Your task to perform on an android device: toggle notifications settings in the gmail app Image 0: 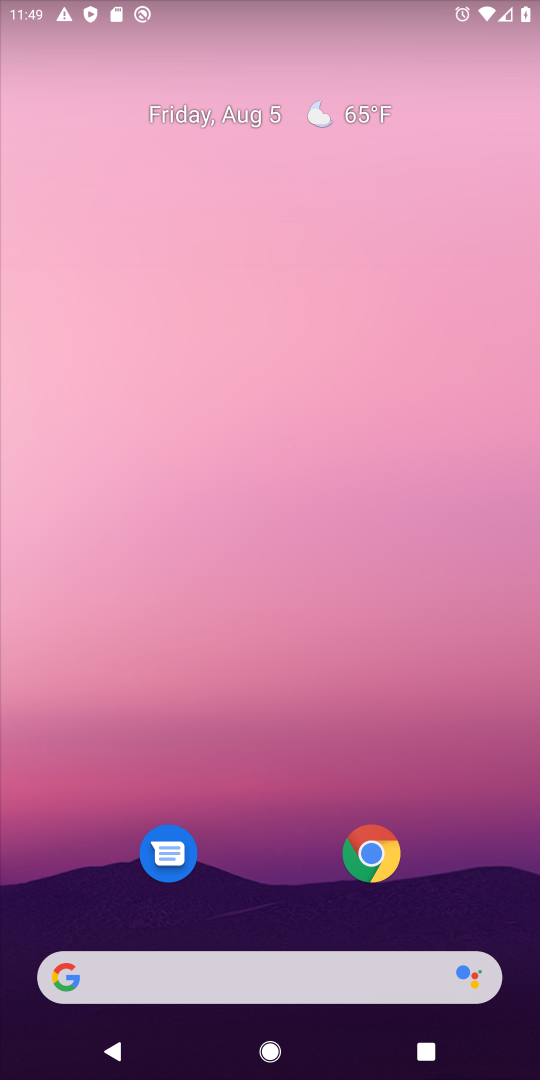
Step 0: drag from (229, 61) to (125, 9)
Your task to perform on an android device: toggle notifications settings in the gmail app Image 1: 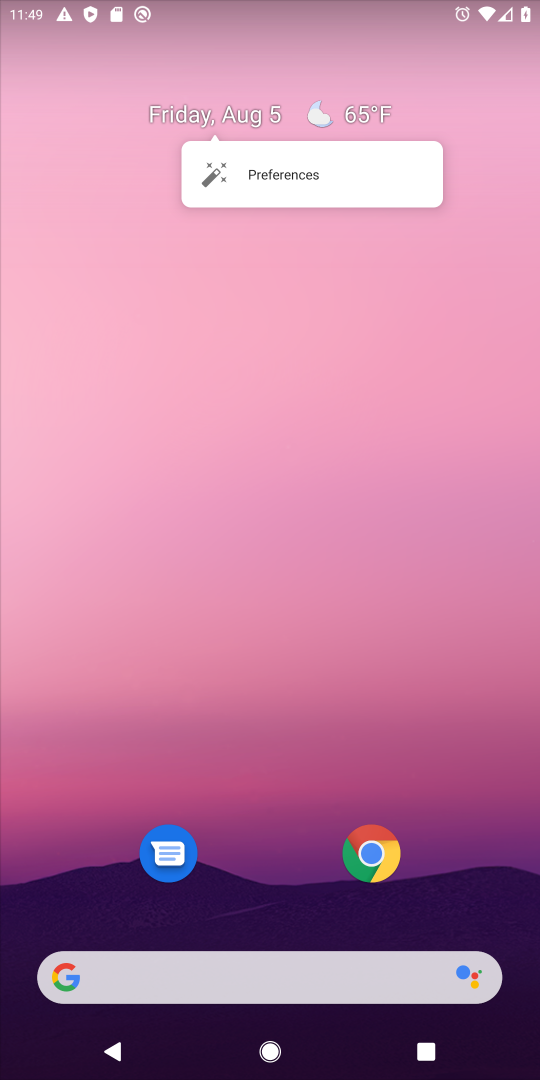
Step 1: drag from (303, 971) to (204, 55)
Your task to perform on an android device: toggle notifications settings in the gmail app Image 2: 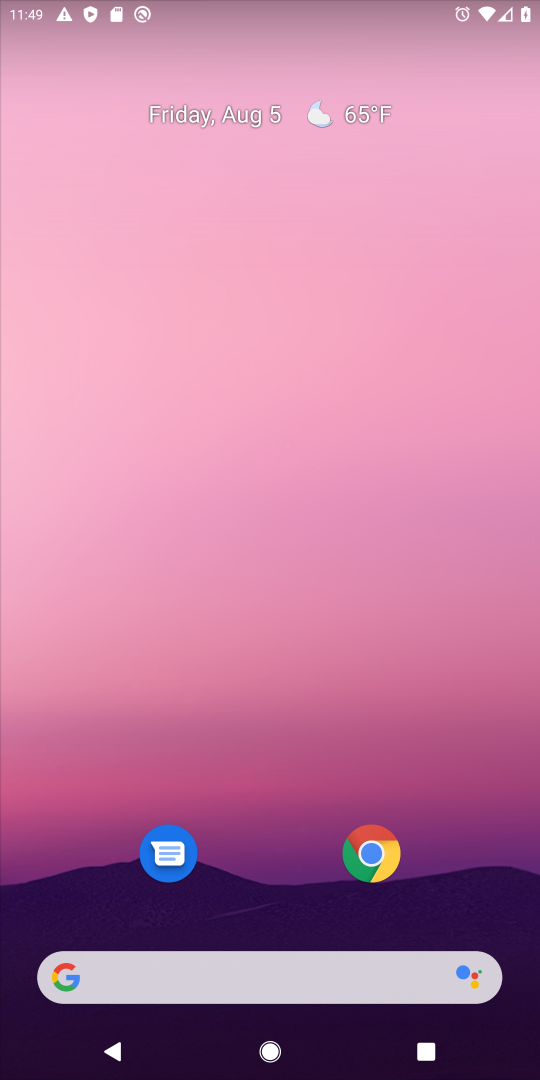
Step 2: drag from (268, 984) to (173, 57)
Your task to perform on an android device: toggle notifications settings in the gmail app Image 3: 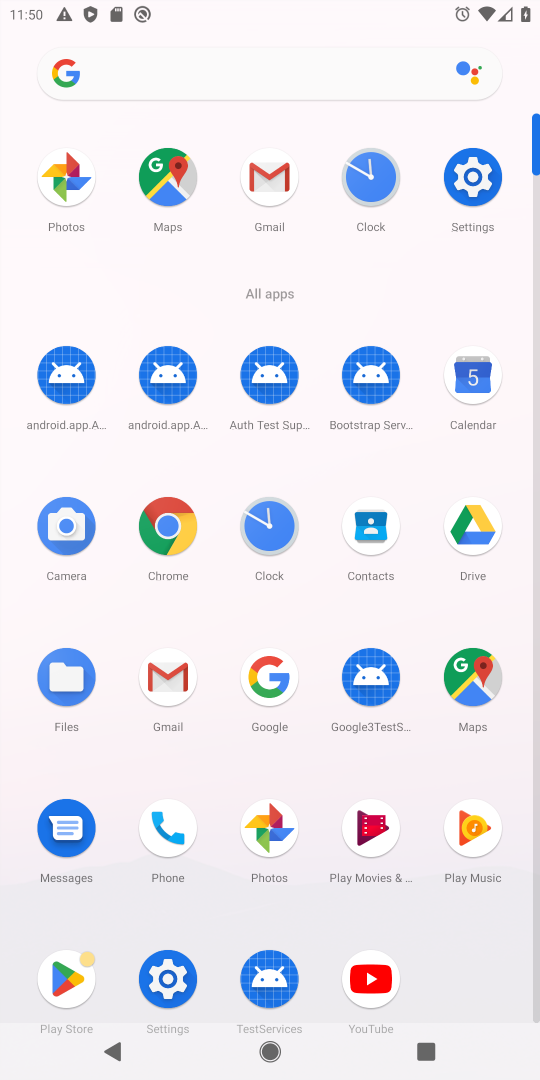
Step 3: click (159, 692)
Your task to perform on an android device: toggle notifications settings in the gmail app Image 4: 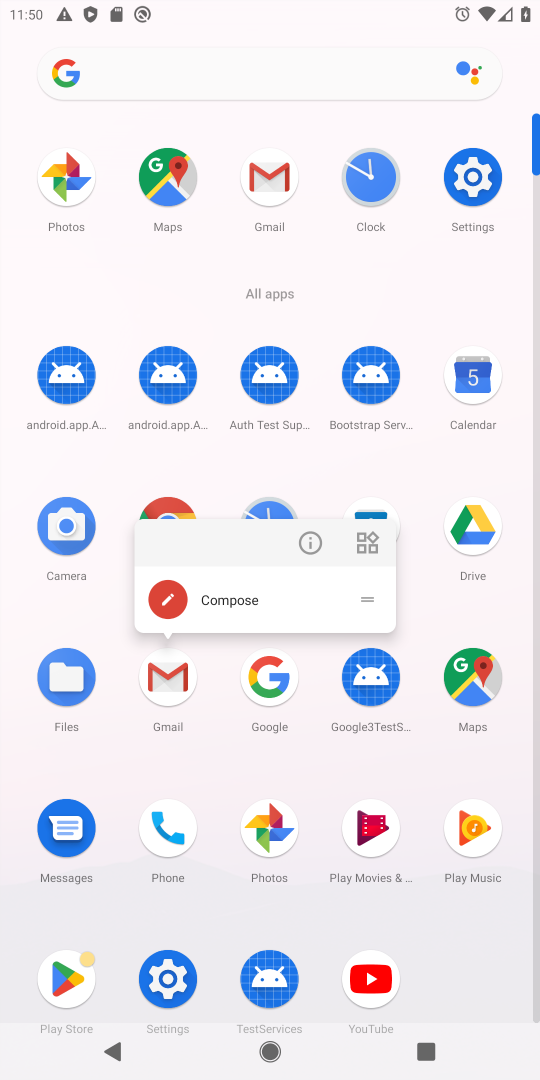
Step 4: click (185, 684)
Your task to perform on an android device: toggle notifications settings in the gmail app Image 5: 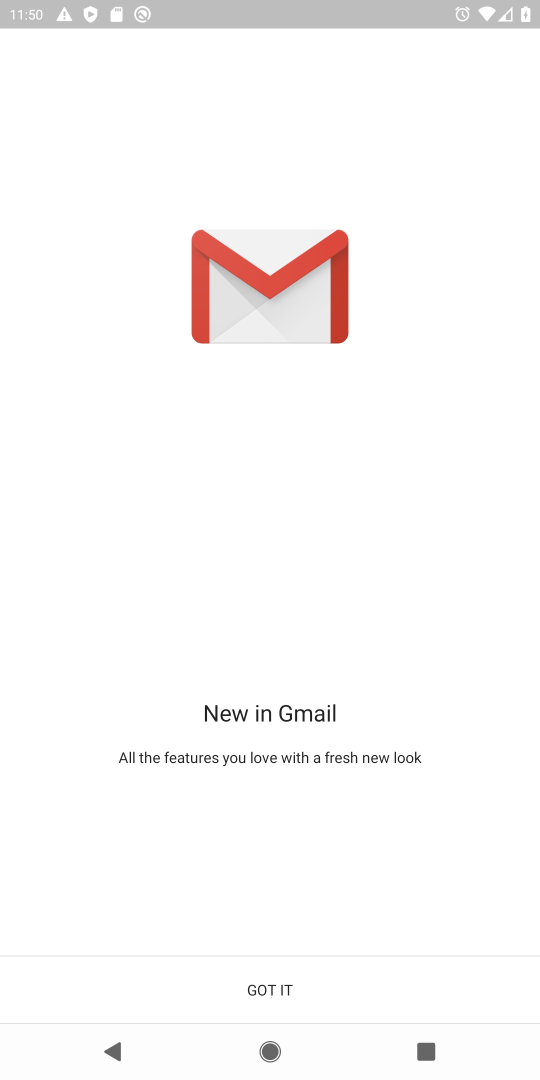
Step 5: click (300, 971)
Your task to perform on an android device: toggle notifications settings in the gmail app Image 6: 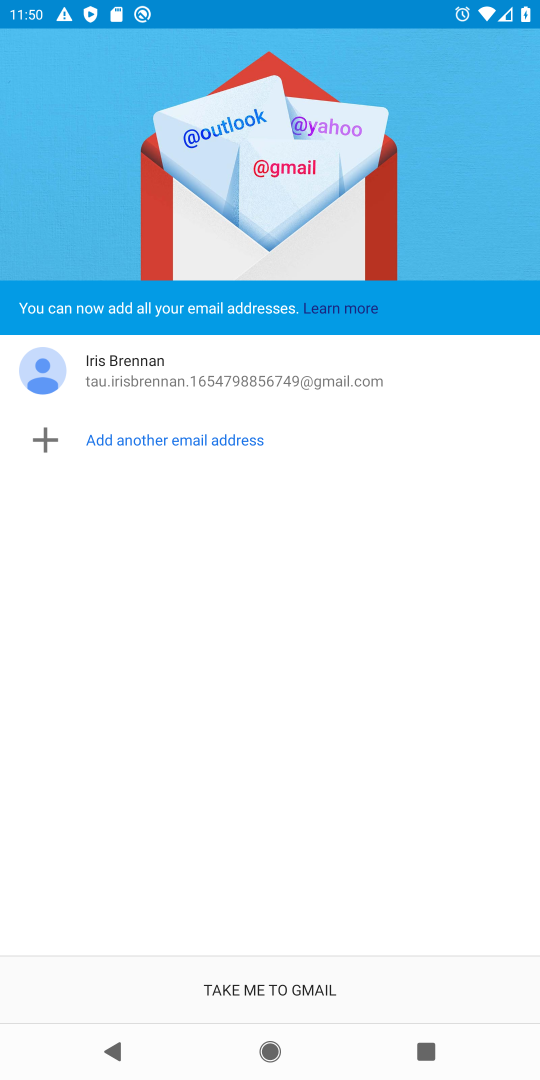
Step 6: click (310, 997)
Your task to perform on an android device: toggle notifications settings in the gmail app Image 7: 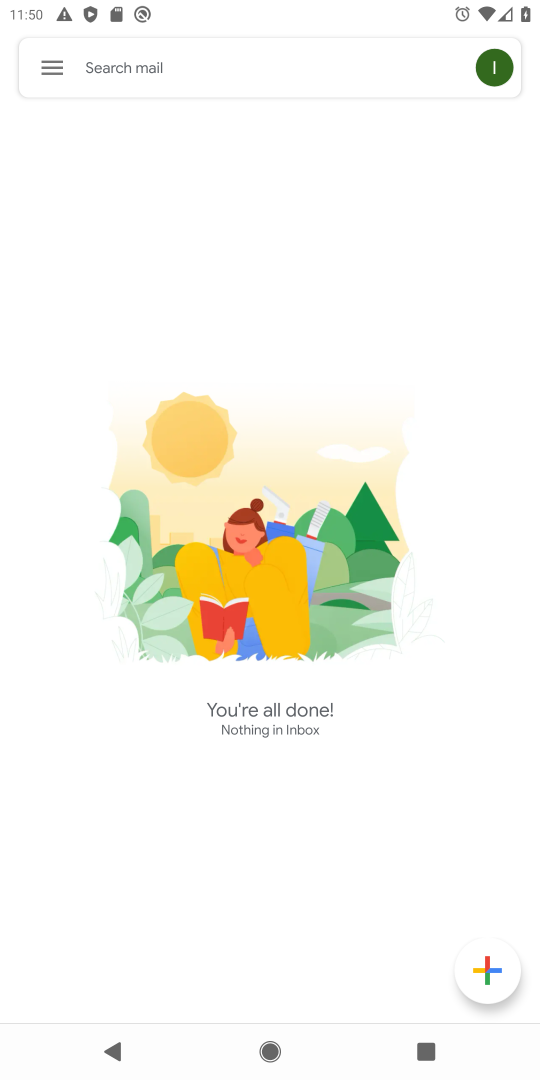
Step 7: click (60, 75)
Your task to perform on an android device: toggle notifications settings in the gmail app Image 8: 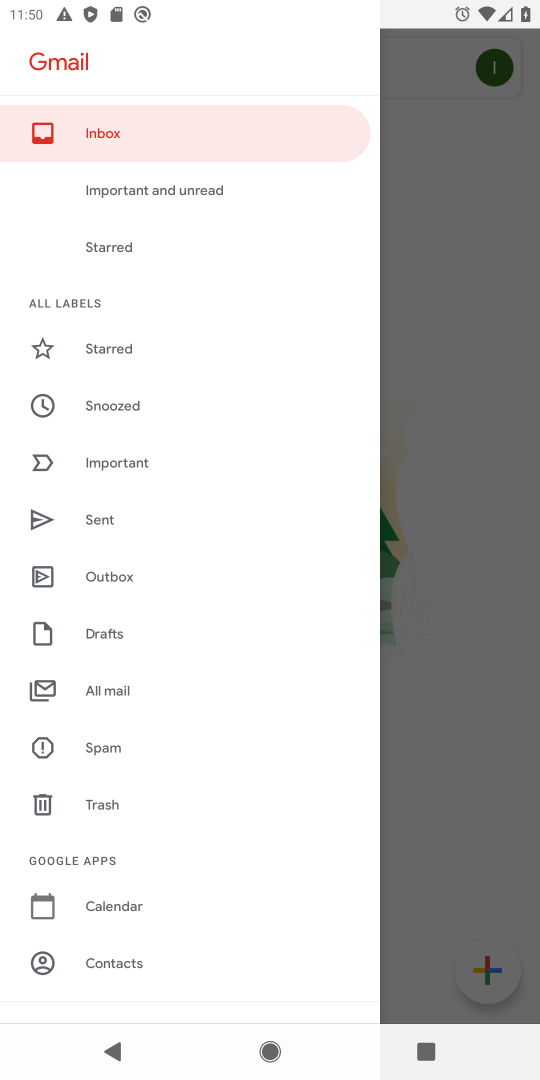
Step 8: drag from (133, 921) to (94, 360)
Your task to perform on an android device: toggle notifications settings in the gmail app Image 9: 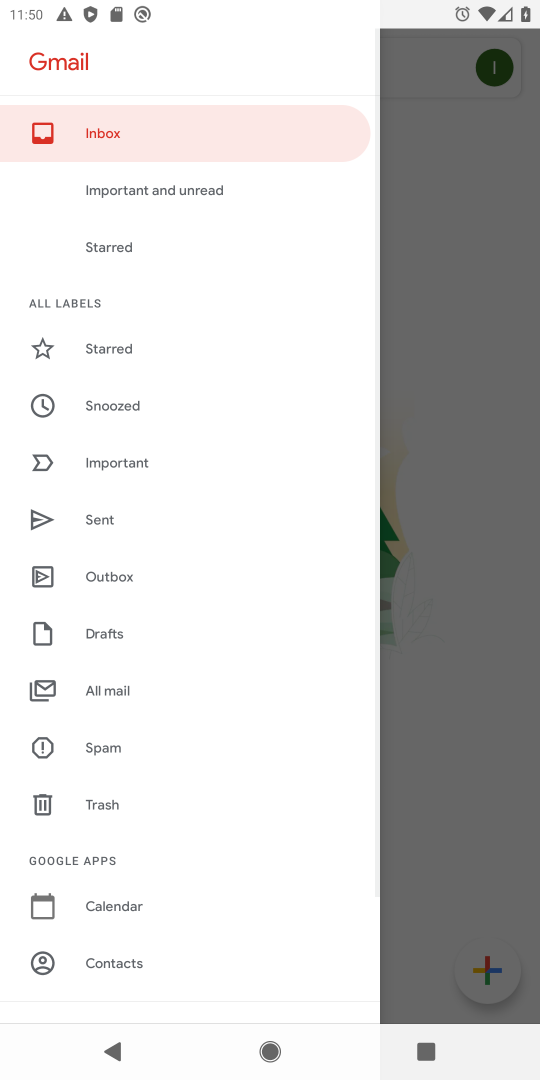
Step 9: drag from (190, 806) to (130, 59)
Your task to perform on an android device: toggle notifications settings in the gmail app Image 10: 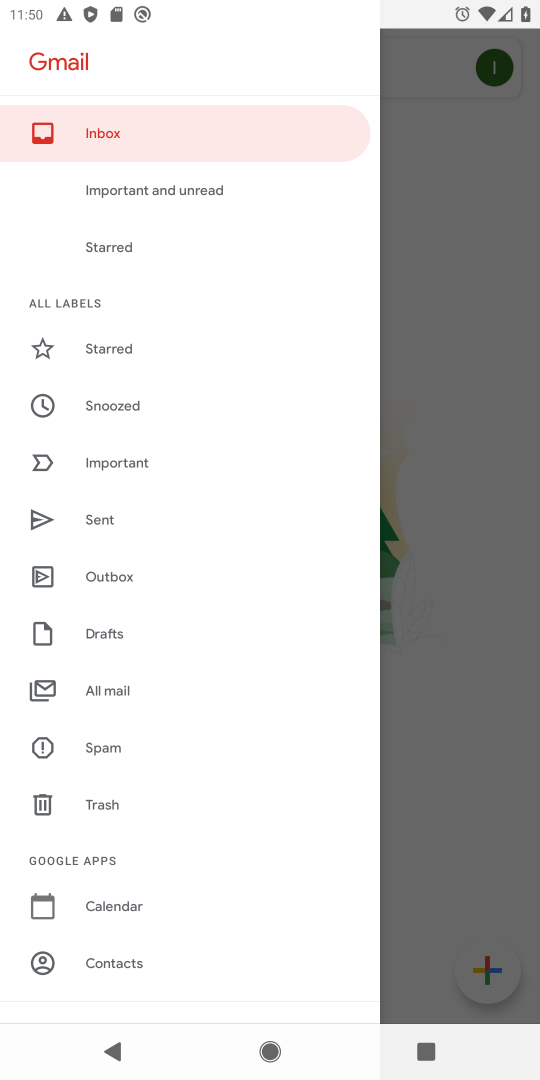
Step 10: drag from (176, 717) to (181, 83)
Your task to perform on an android device: toggle notifications settings in the gmail app Image 11: 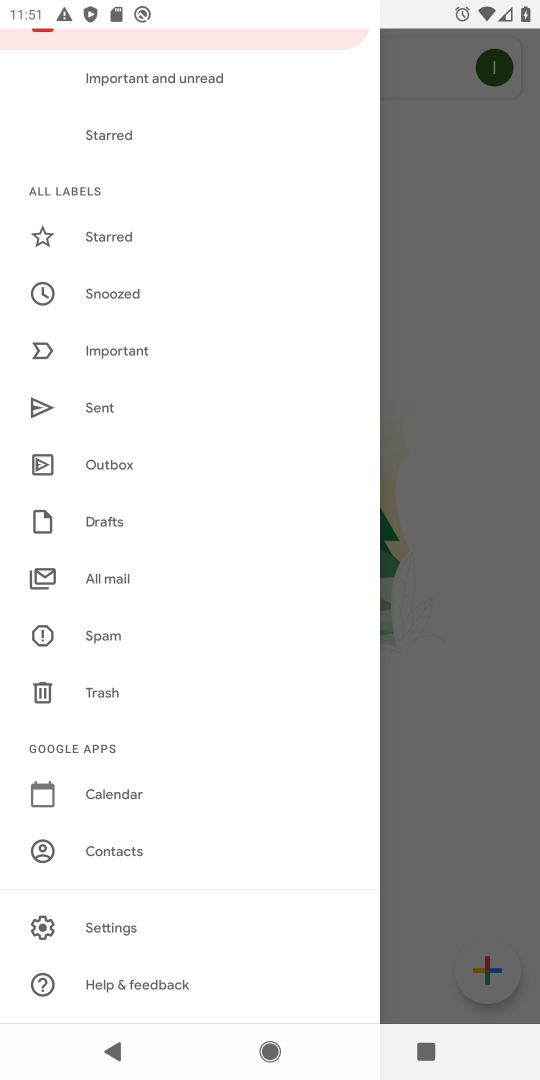
Step 11: click (140, 931)
Your task to perform on an android device: toggle notifications settings in the gmail app Image 12: 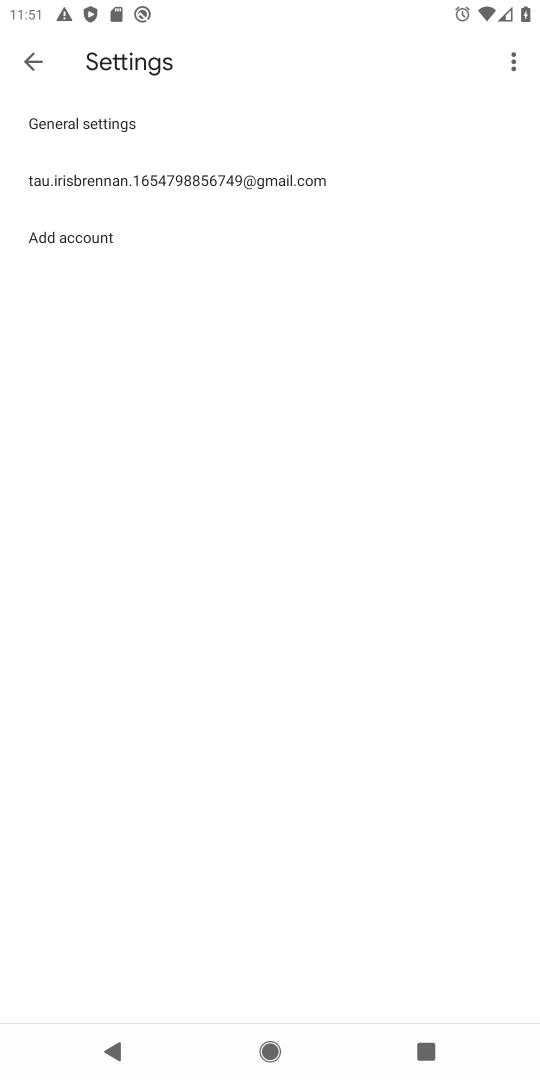
Step 12: click (165, 197)
Your task to perform on an android device: toggle notifications settings in the gmail app Image 13: 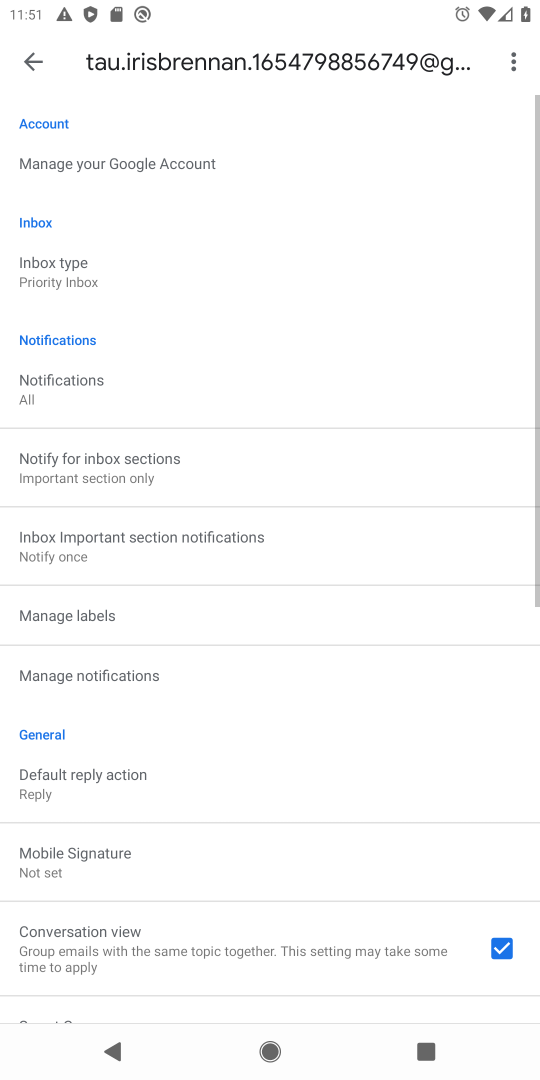
Step 13: click (128, 675)
Your task to perform on an android device: toggle notifications settings in the gmail app Image 14: 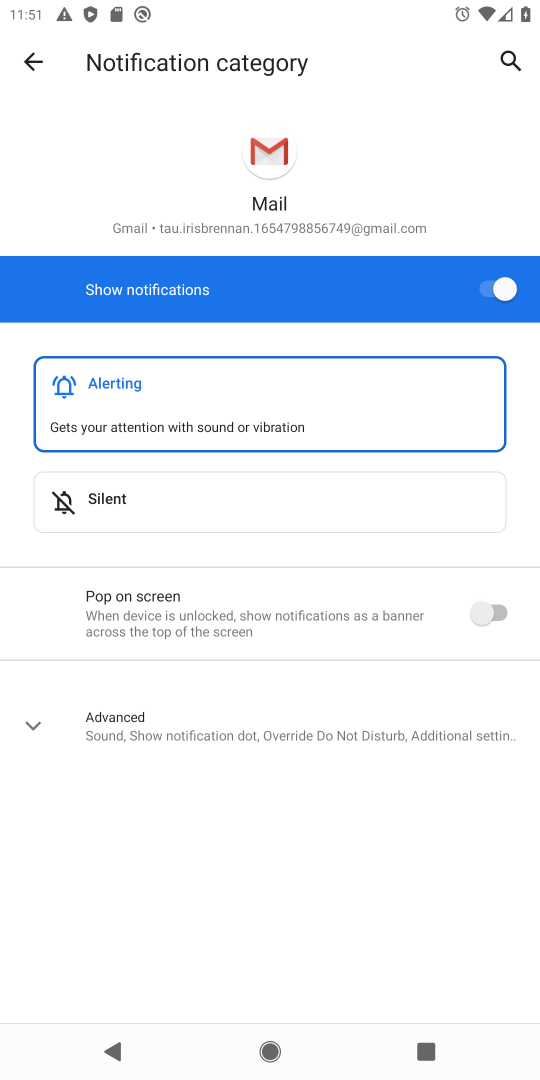
Step 14: click (489, 291)
Your task to perform on an android device: toggle notifications settings in the gmail app Image 15: 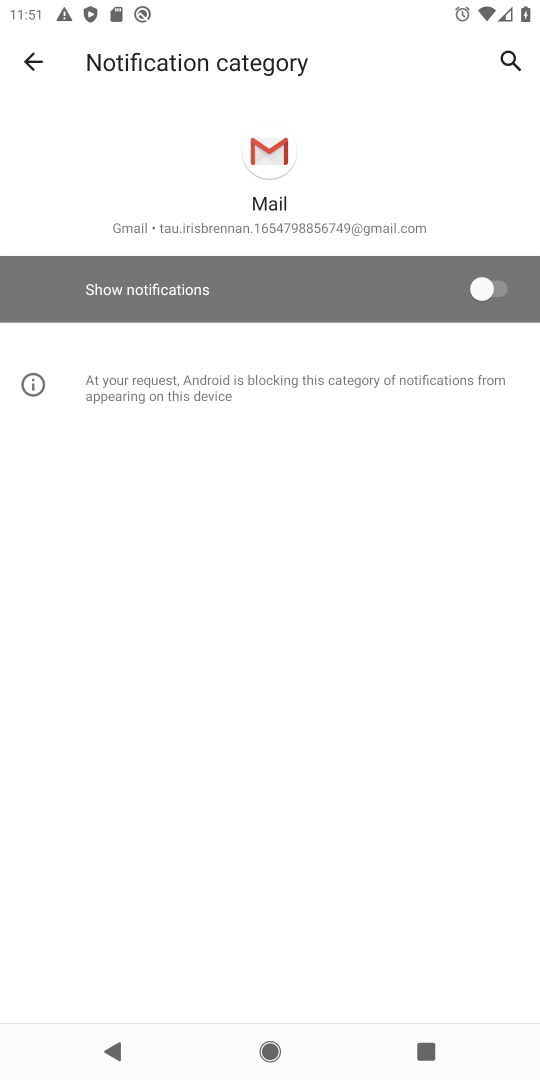
Step 15: task complete